Your task to perform on an android device: turn on data saver in the chrome app Image 0: 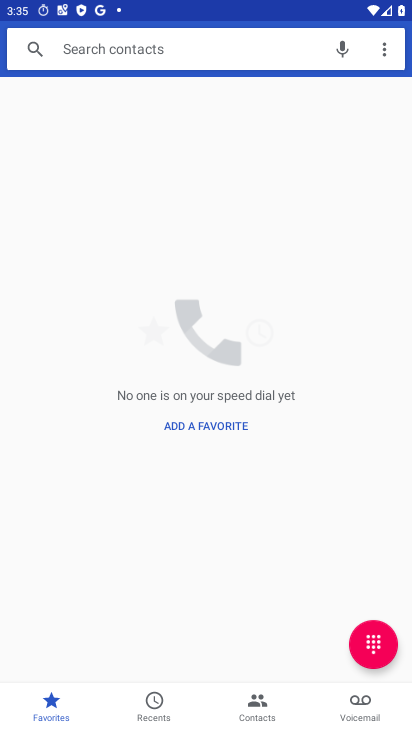
Step 0: press home button
Your task to perform on an android device: turn on data saver in the chrome app Image 1: 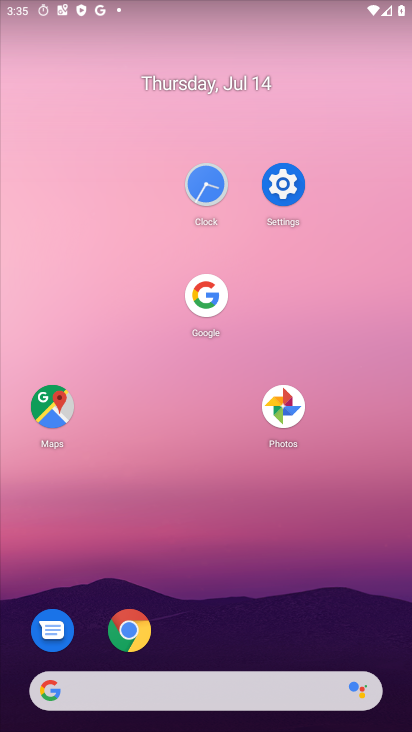
Step 1: click (129, 638)
Your task to perform on an android device: turn on data saver in the chrome app Image 2: 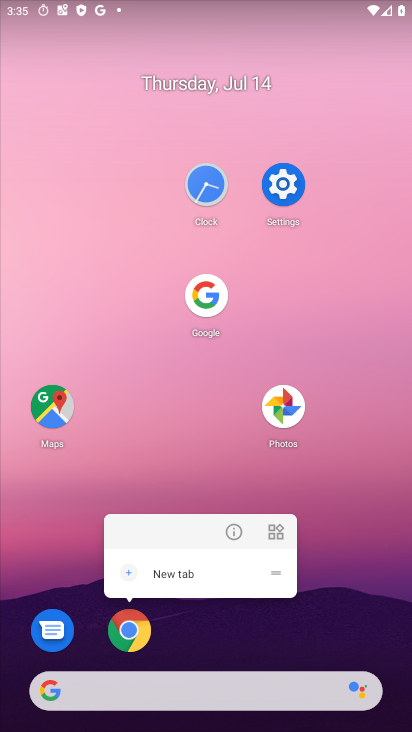
Step 2: click (122, 635)
Your task to perform on an android device: turn on data saver in the chrome app Image 3: 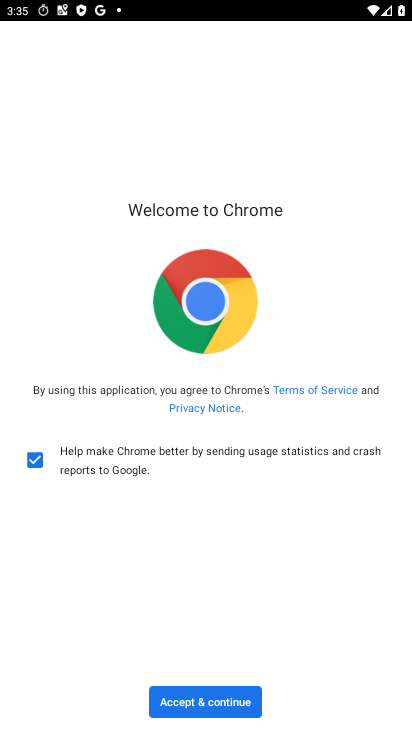
Step 3: click (251, 698)
Your task to perform on an android device: turn on data saver in the chrome app Image 4: 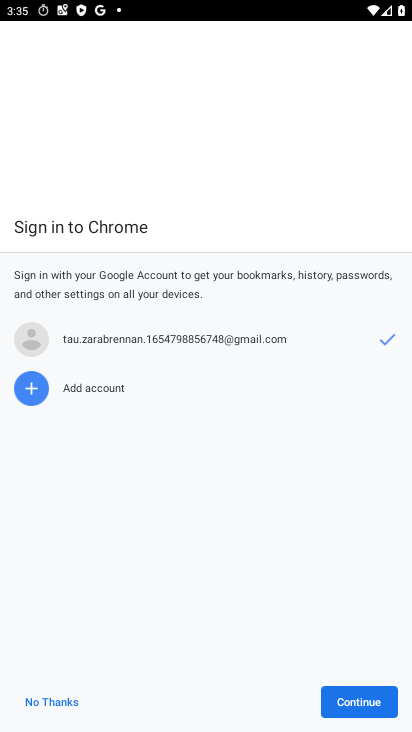
Step 4: click (381, 716)
Your task to perform on an android device: turn on data saver in the chrome app Image 5: 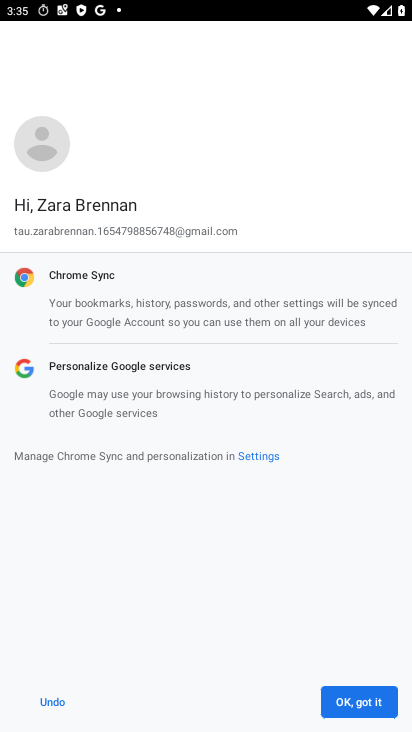
Step 5: click (381, 716)
Your task to perform on an android device: turn on data saver in the chrome app Image 6: 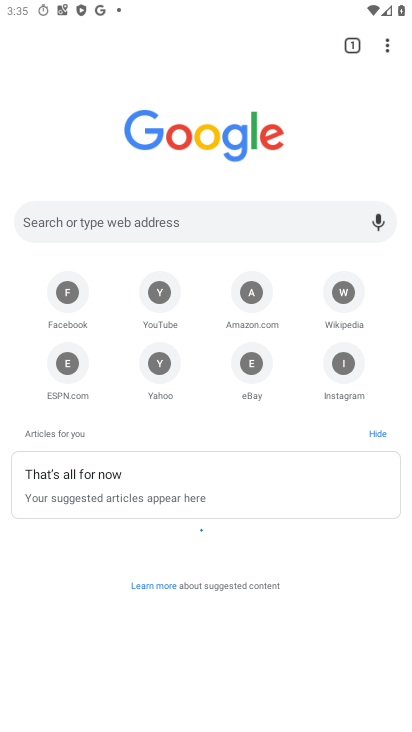
Step 6: click (383, 42)
Your task to perform on an android device: turn on data saver in the chrome app Image 7: 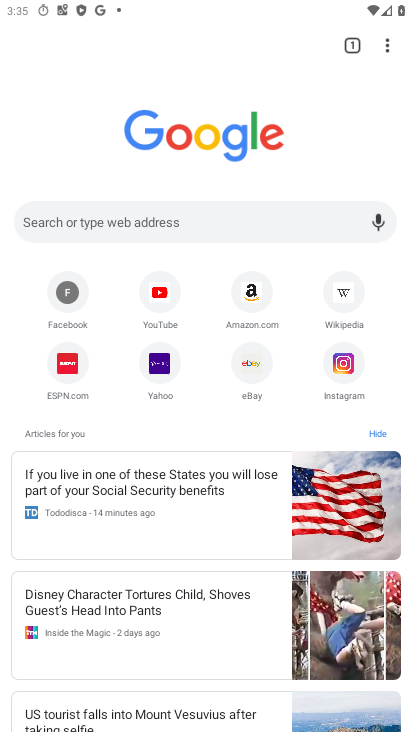
Step 7: click (386, 44)
Your task to perform on an android device: turn on data saver in the chrome app Image 8: 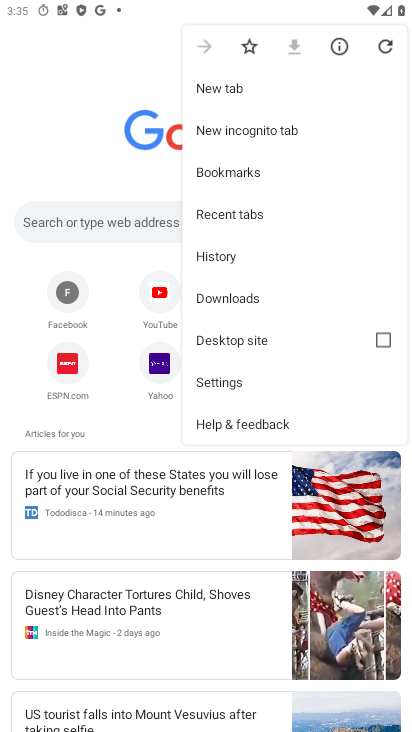
Step 8: click (229, 378)
Your task to perform on an android device: turn on data saver in the chrome app Image 9: 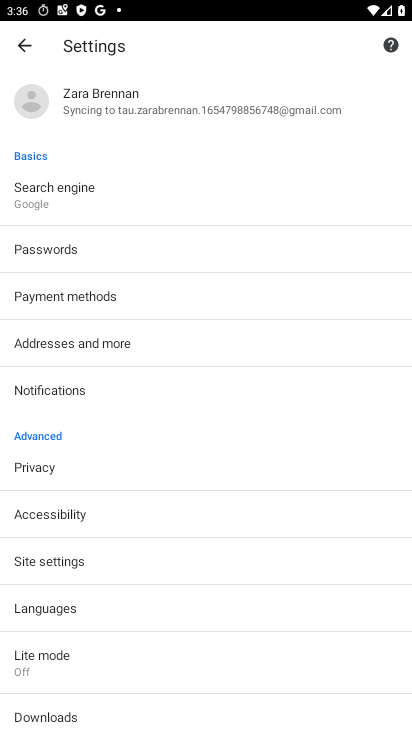
Step 9: drag from (114, 647) to (80, 647)
Your task to perform on an android device: turn on data saver in the chrome app Image 10: 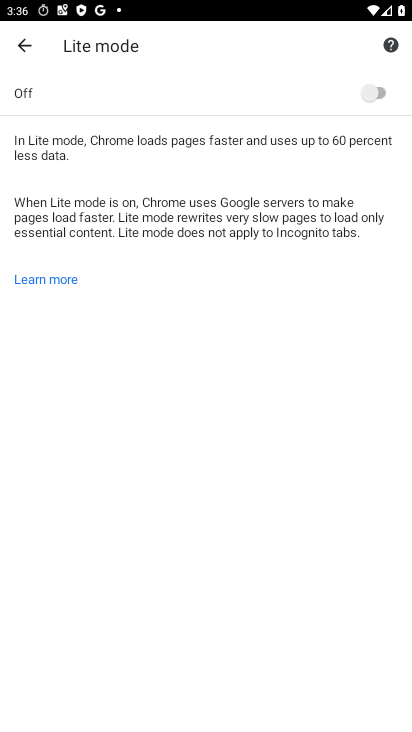
Step 10: click (366, 92)
Your task to perform on an android device: turn on data saver in the chrome app Image 11: 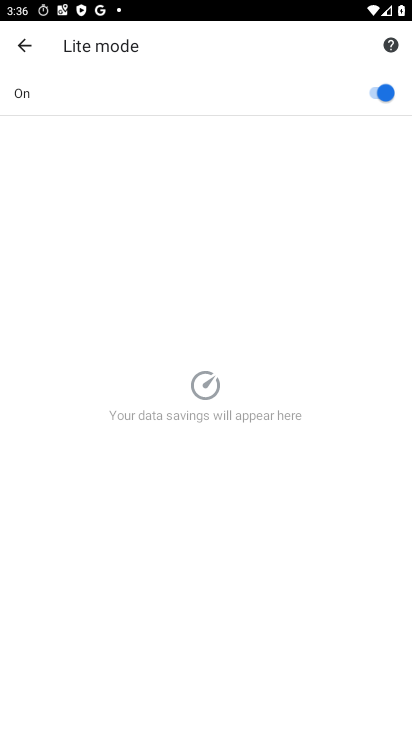
Step 11: task complete